Your task to perform on an android device: Open Google Chrome and click the shortcut for Amazon.com Image 0: 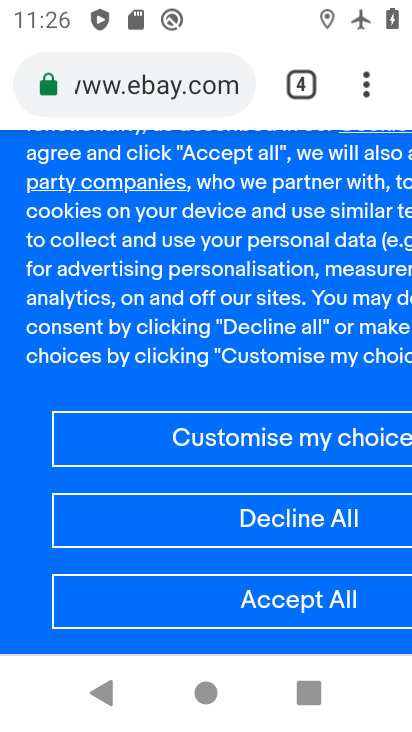
Step 0: press home button
Your task to perform on an android device: Open Google Chrome and click the shortcut for Amazon.com Image 1: 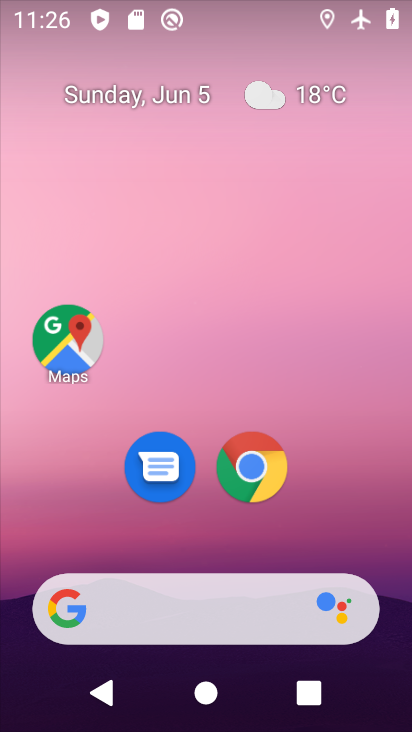
Step 1: click (242, 485)
Your task to perform on an android device: Open Google Chrome and click the shortcut for Amazon.com Image 2: 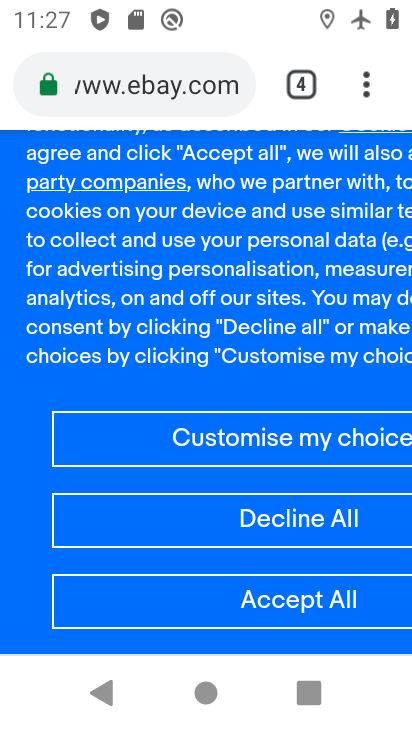
Step 2: click (306, 69)
Your task to perform on an android device: Open Google Chrome and click the shortcut for Amazon.com Image 3: 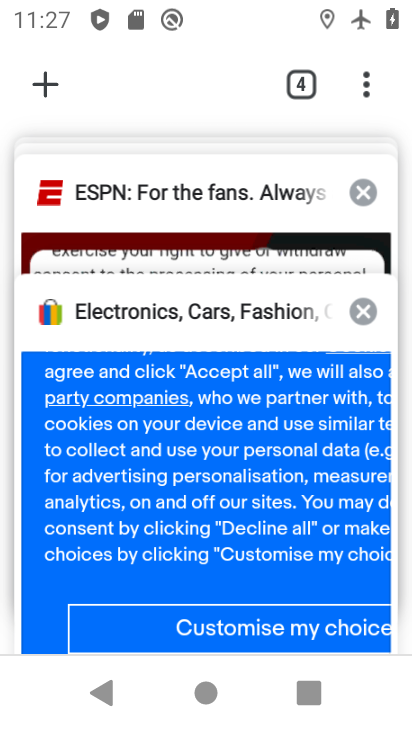
Step 3: click (33, 81)
Your task to perform on an android device: Open Google Chrome and click the shortcut for Amazon.com Image 4: 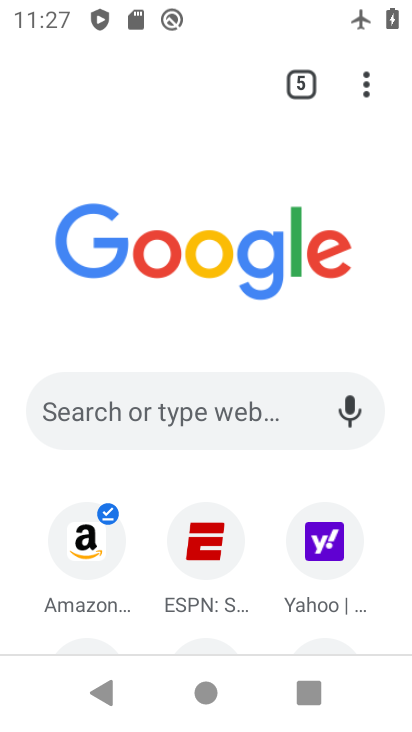
Step 4: click (65, 551)
Your task to perform on an android device: Open Google Chrome and click the shortcut for Amazon.com Image 5: 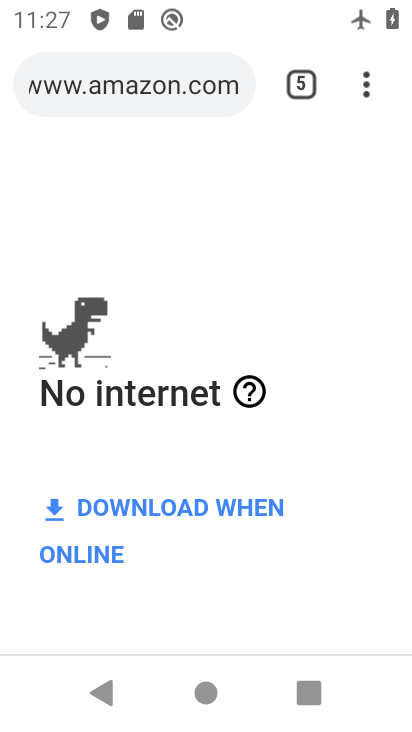
Step 5: task complete